Your task to perform on an android device: turn on notifications settings in the gmail app Image 0: 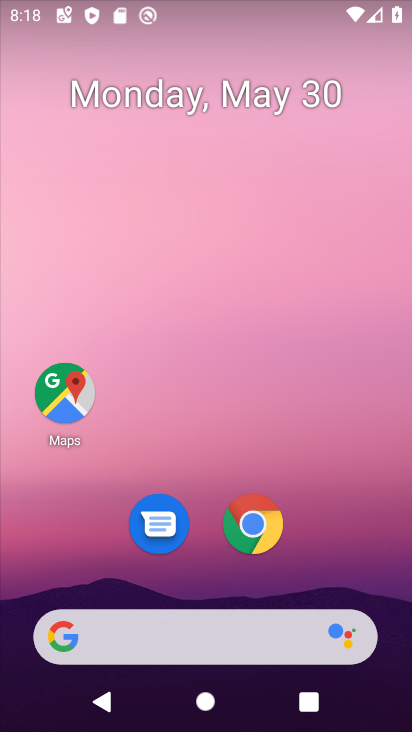
Step 0: drag from (205, 459) to (228, 3)
Your task to perform on an android device: turn on notifications settings in the gmail app Image 1: 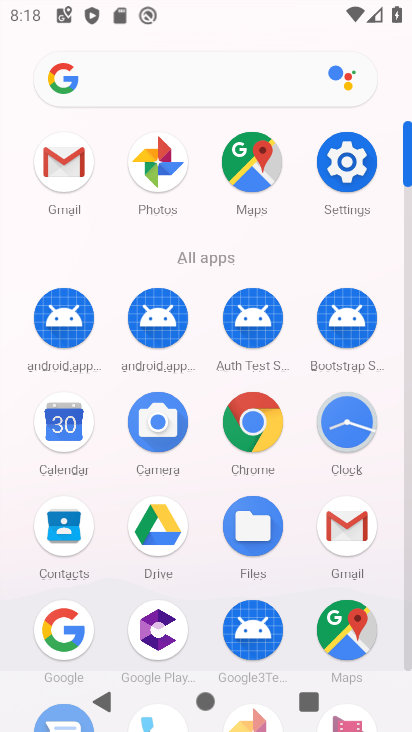
Step 1: click (62, 155)
Your task to perform on an android device: turn on notifications settings in the gmail app Image 2: 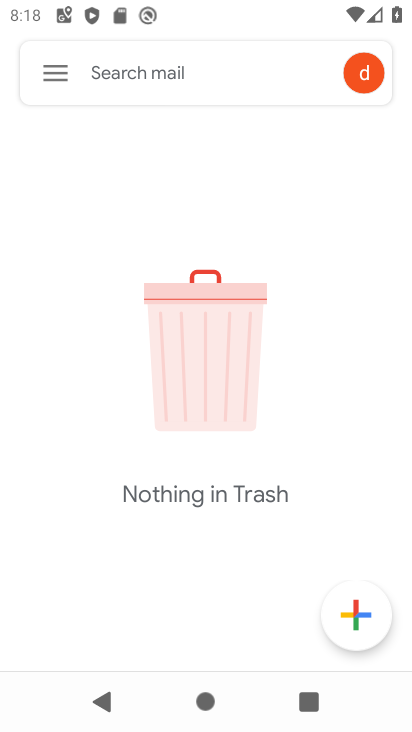
Step 2: click (51, 64)
Your task to perform on an android device: turn on notifications settings in the gmail app Image 3: 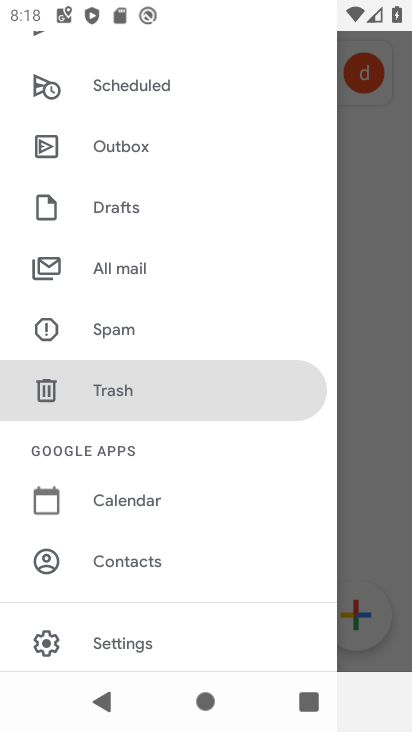
Step 3: click (167, 641)
Your task to perform on an android device: turn on notifications settings in the gmail app Image 4: 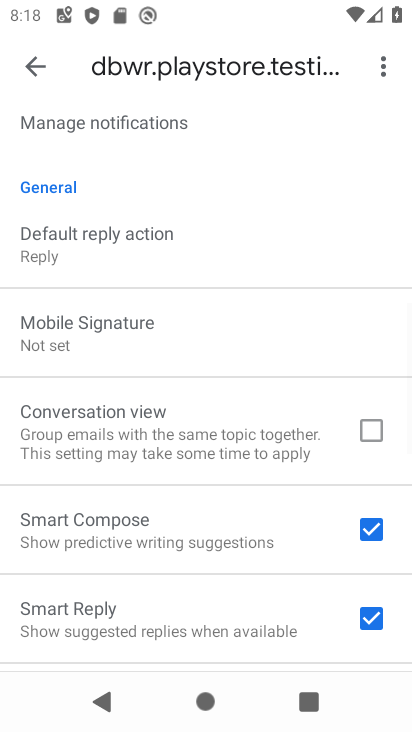
Step 4: drag from (186, 327) to (191, 238)
Your task to perform on an android device: turn on notifications settings in the gmail app Image 5: 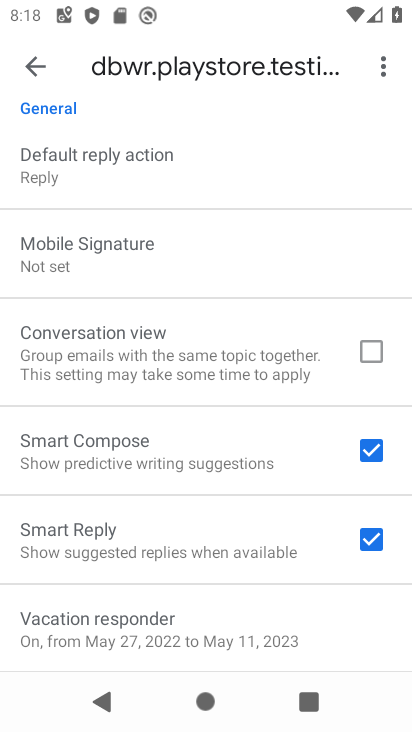
Step 5: drag from (228, 172) to (214, 526)
Your task to perform on an android device: turn on notifications settings in the gmail app Image 6: 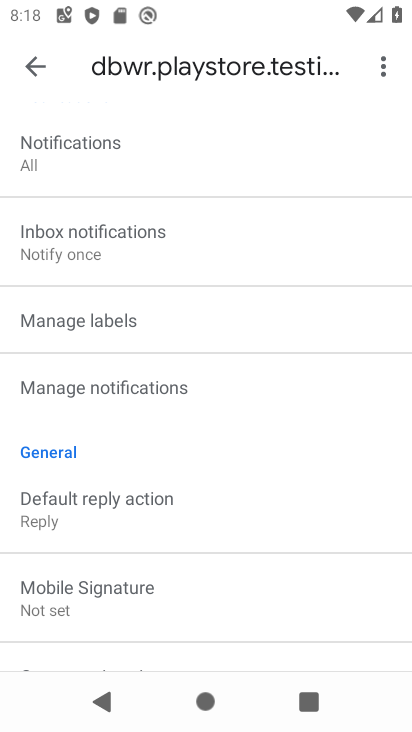
Step 6: click (212, 388)
Your task to perform on an android device: turn on notifications settings in the gmail app Image 7: 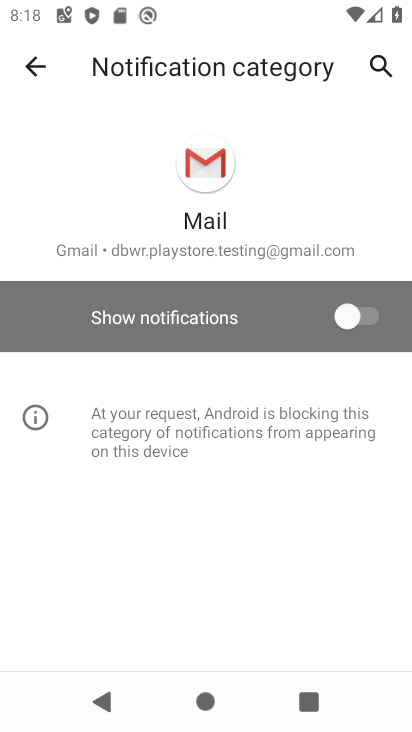
Step 7: click (350, 306)
Your task to perform on an android device: turn on notifications settings in the gmail app Image 8: 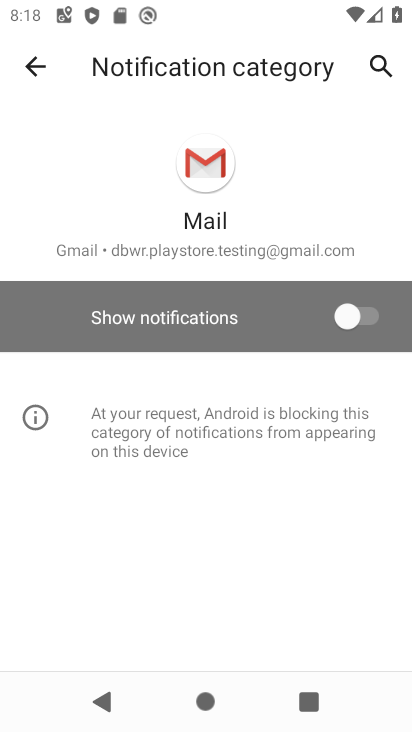
Step 8: click (353, 313)
Your task to perform on an android device: turn on notifications settings in the gmail app Image 9: 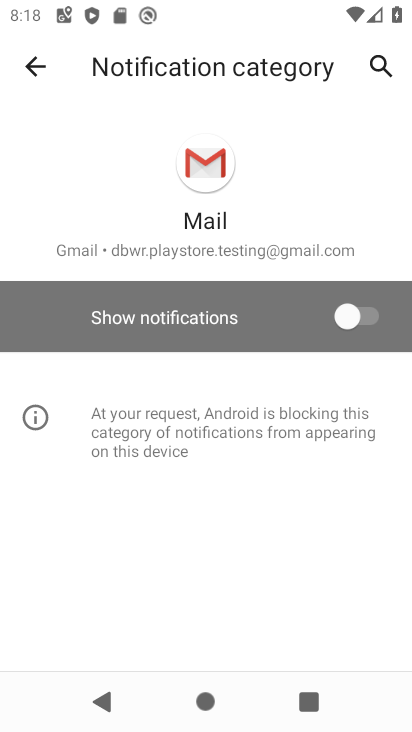
Step 9: click (41, 57)
Your task to perform on an android device: turn on notifications settings in the gmail app Image 10: 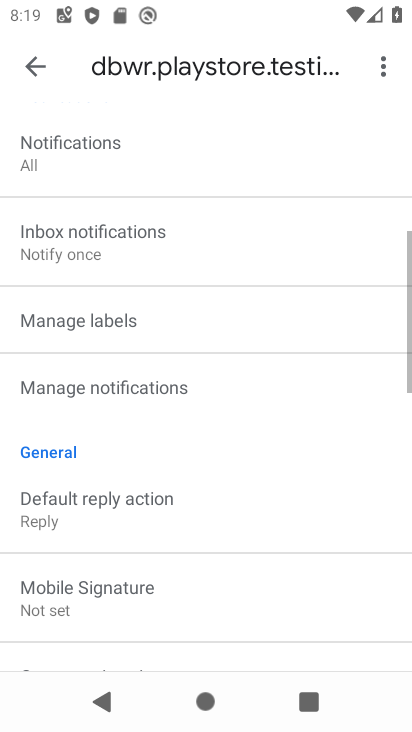
Step 10: click (41, 57)
Your task to perform on an android device: turn on notifications settings in the gmail app Image 11: 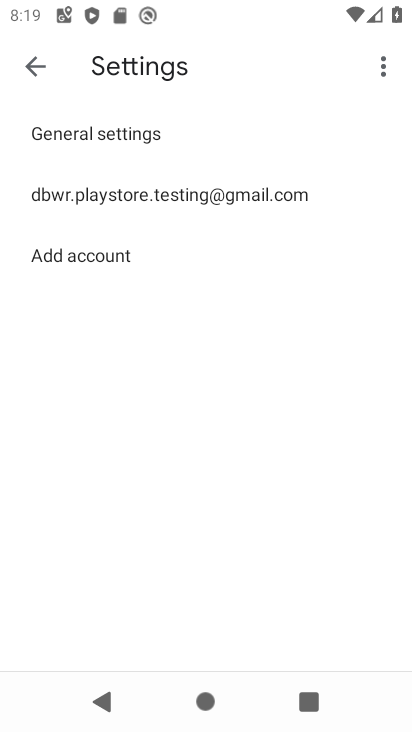
Step 11: click (90, 134)
Your task to perform on an android device: turn on notifications settings in the gmail app Image 12: 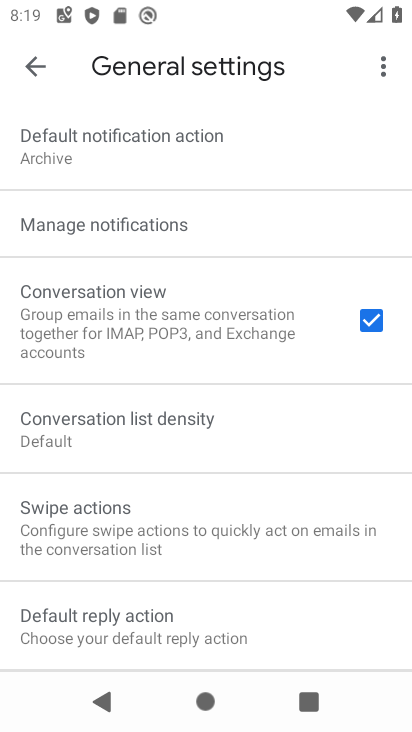
Step 12: click (128, 221)
Your task to perform on an android device: turn on notifications settings in the gmail app Image 13: 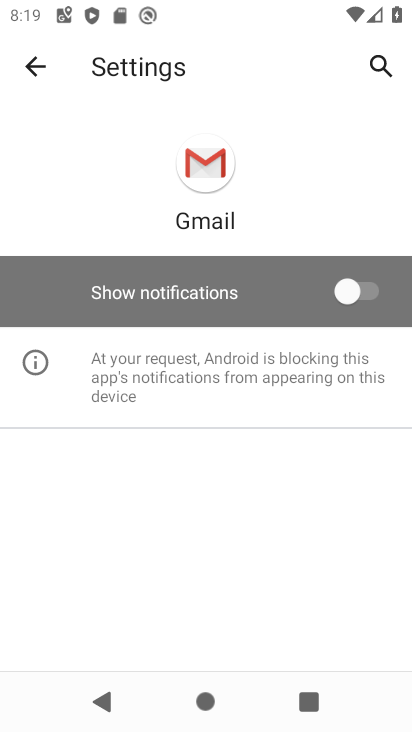
Step 13: click (358, 295)
Your task to perform on an android device: turn on notifications settings in the gmail app Image 14: 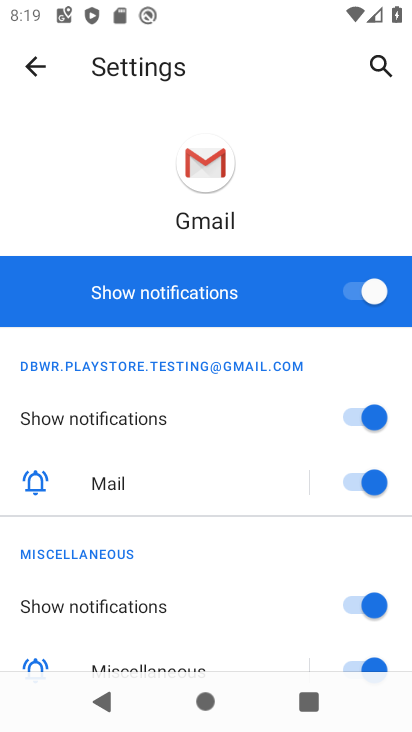
Step 14: task complete